Your task to perform on an android device: check the backup settings in the google photos Image 0: 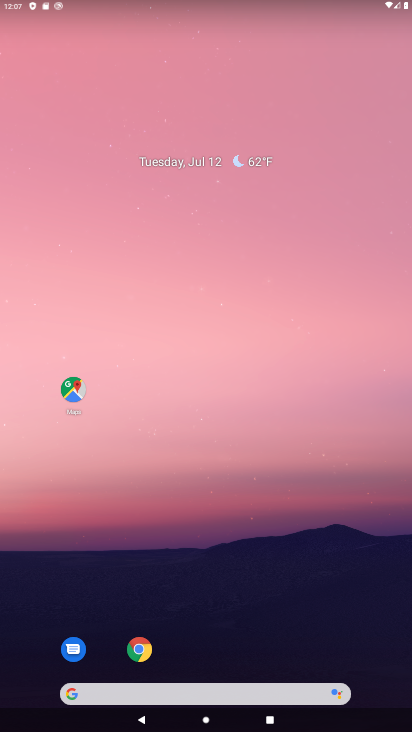
Step 0: drag from (342, 612) to (243, 100)
Your task to perform on an android device: check the backup settings in the google photos Image 1: 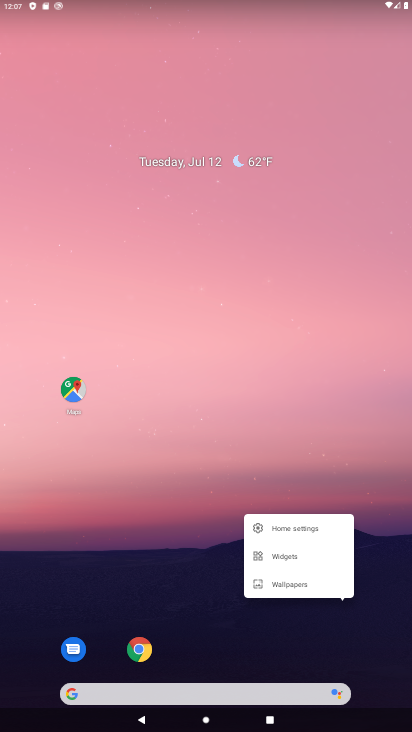
Step 1: drag from (372, 451) to (330, 248)
Your task to perform on an android device: check the backup settings in the google photos Image 2: 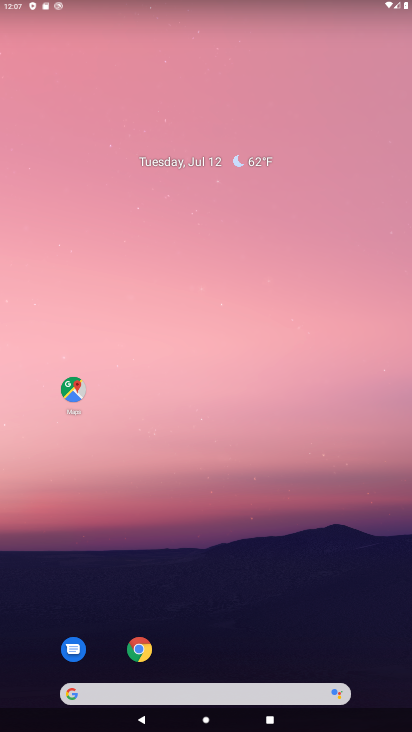
Step 2: drag from (244, 637) to (296, 166)
Your task to perform on an android device: check the backup settings in the google photos Image 3: 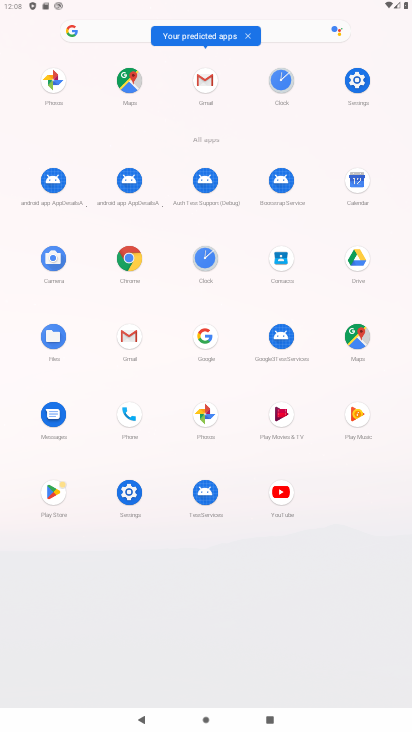
Step 3: click (206, 413)
Your task to perform on an android device: check the backup settings in the google photos Image 4: 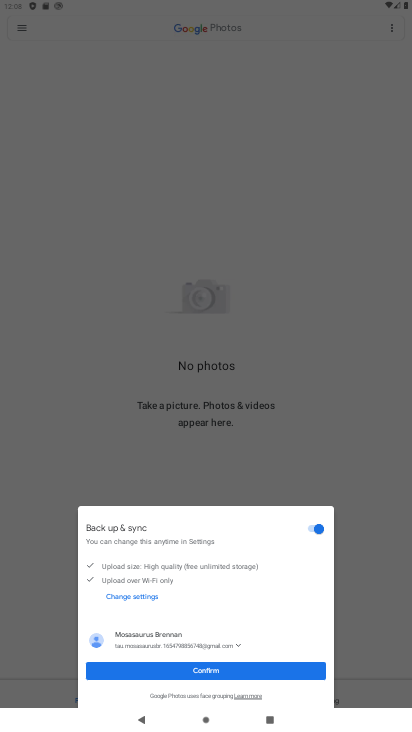
Step 4: click (218, 668)
Your task to perform on an android device: check the backup settings in the google photos Image 5: 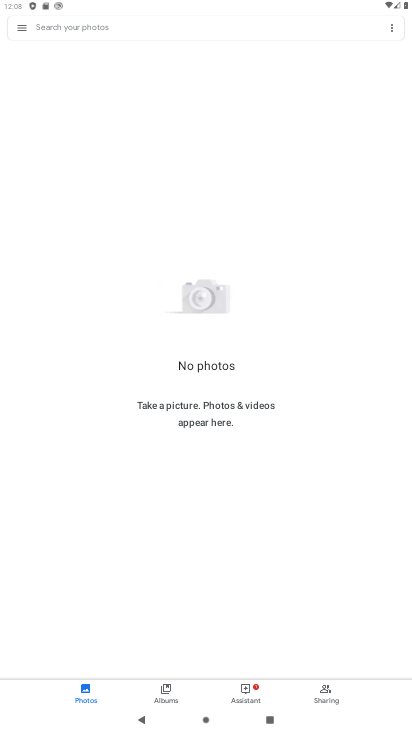
Step 5: click (21, 27)
Your task to perform on an android device: check the backup settings in the google photos Image 6: 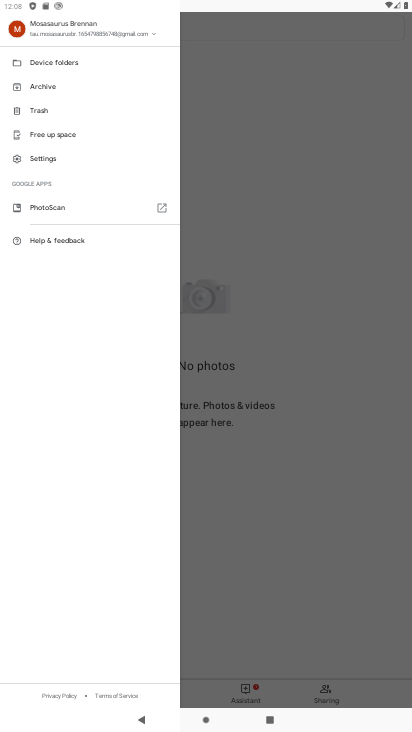
Step 6: click (54, 162)
Your task to perform on an android device: check the backup settings in the google photos Image 7: 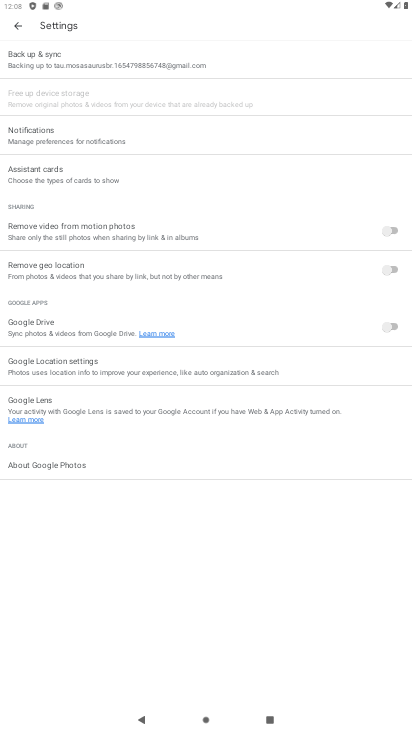
Step 7: click (138, 51)
Your task to perform on an android device: check the backup settings in the google photos Image 8: 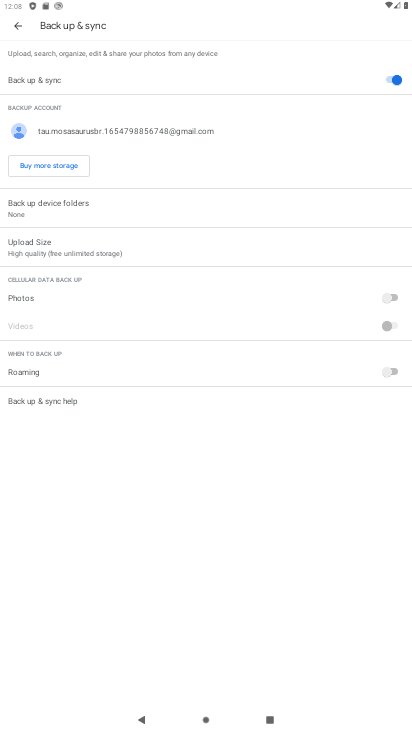
Step 8: task complete